Your task to perform on an android device: toggle notifications settings in the gmail app Image 0: 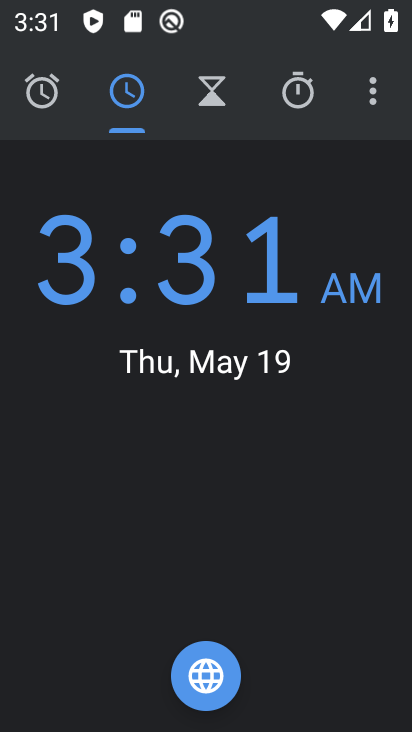
Step 0: press home button
Your task to perform on an android device: toggle notifications settings in the gmail app Image 1: 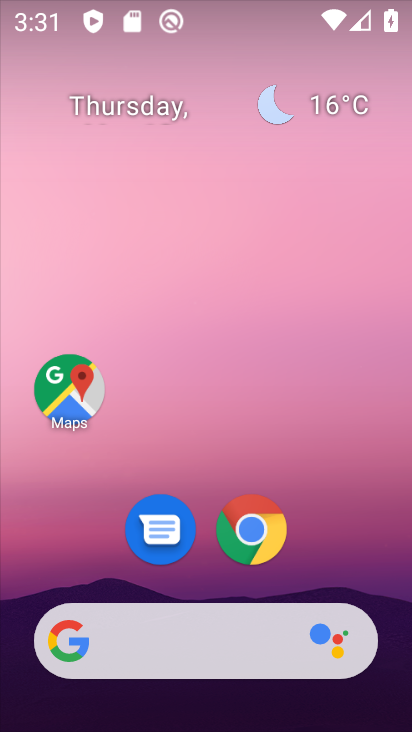
Step 1: drag from (209, 585) to (109, 4)
Your task to perform on an android device: toggle notifications settings in the gmail app Image 2: 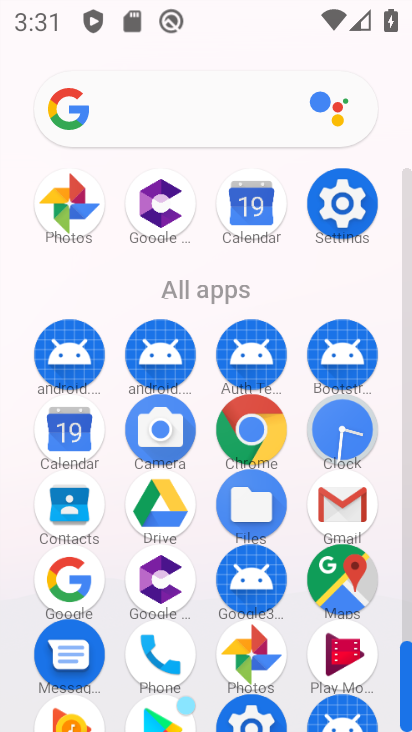
Step 2: click (328, 496)
Your task to perform on an android device: toggle notifications settings in the gmail app Image 3: 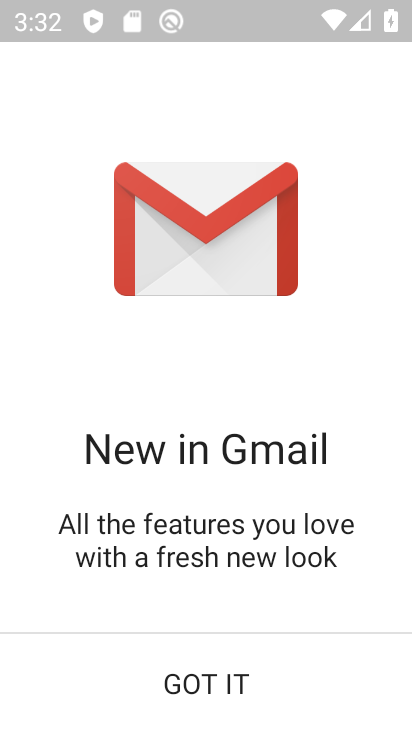
Step 3: click (250, 662)
Your task to perform on an android device: toggle notifications settings in the gmail app Image 4: 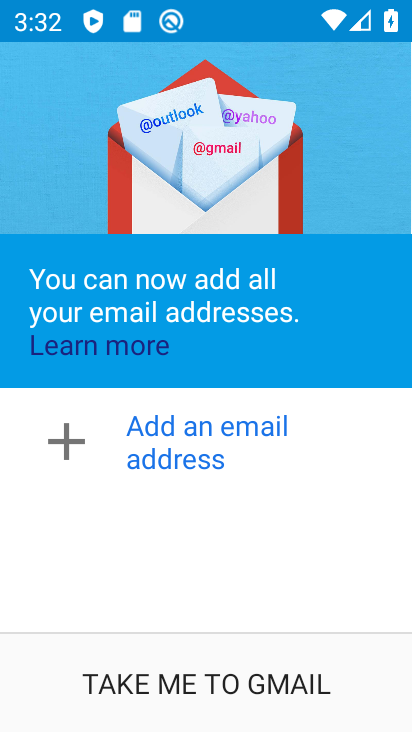
Step 4: click (249, 662)
Your task to perform on an android device: toggle notifications settings in the gmail app Image 5: 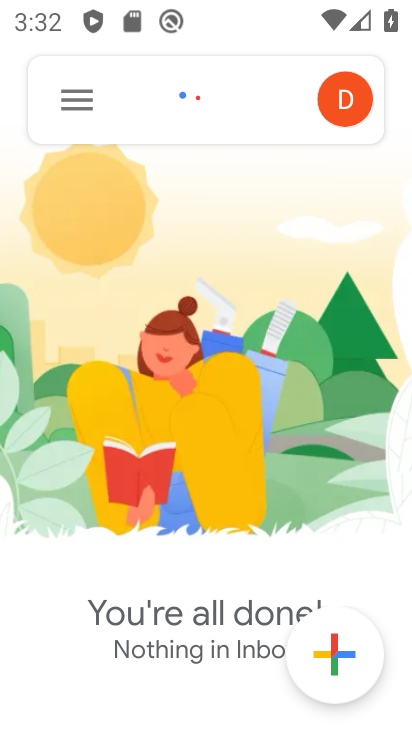
Step 5: click (48, 83)
Your task to perform on an android device: toggle notifications settings in the gmail app Image 6: 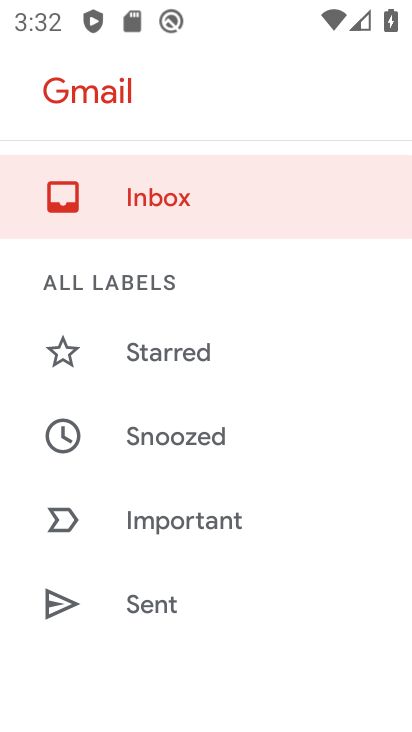
Step 6: drag from (84, 592) to (57, 67)
Your task to perform on an android device: toggle notifications settings in the gmail app Image 7: 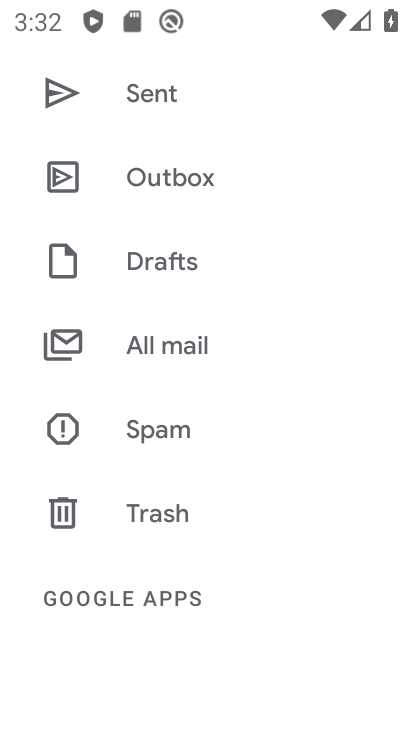
Step 7: drag from (138, 516) to (113, 192)
Your task to perform on an android device: toggle notifications settings in the gmail app Image 8: 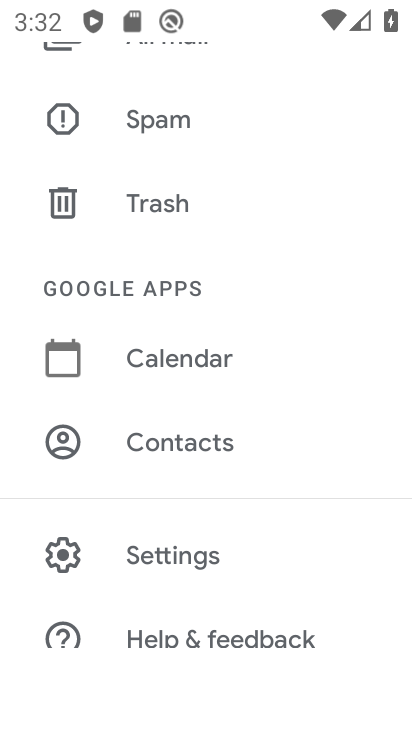
Step 8: click (187, 567)
Your task to perform on an android device: toggle notifications settings in the gmail app Image 9: 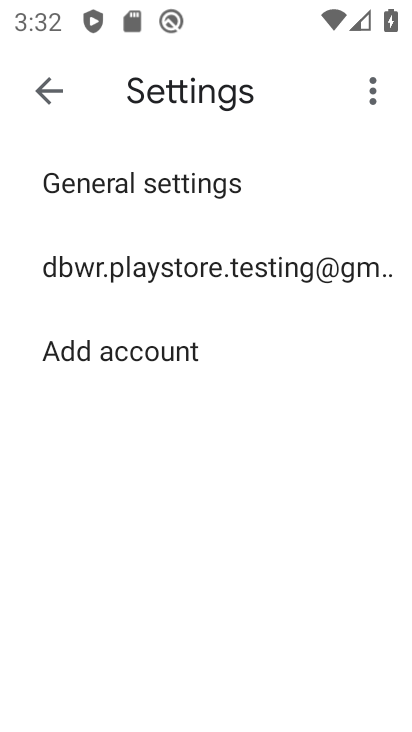
Step 9: click (143, 194)
Your task to perform on an android device: toggle notifications settings in the gmail app Image 10: 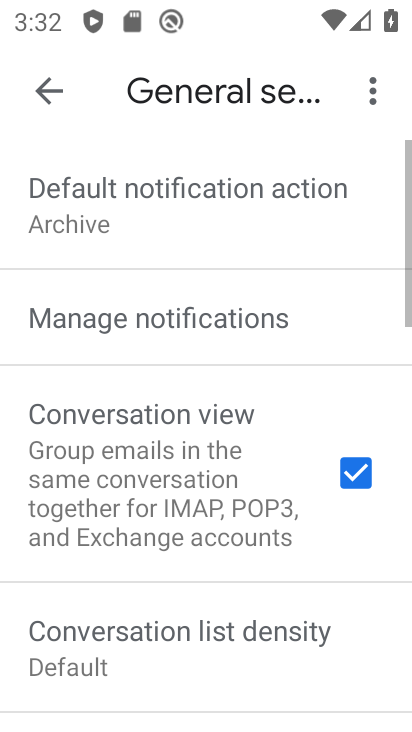
Step 10: click (176, 299)
Your task to perform on an android device: toggle notifications settings in the gmail app Image 11: 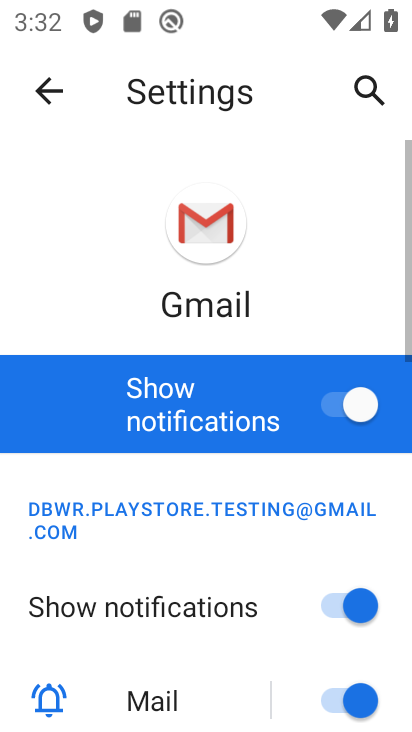
Step 11: click (360, 421)
Your task to perform on an android device: toggle notifications settings in the gmail app Image 12: 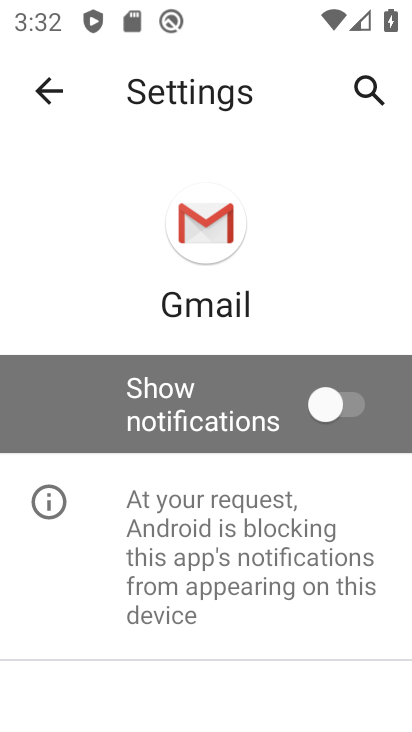
Step 12: task complete